Your task to perform on an android device: set the stopwatch Image 0: 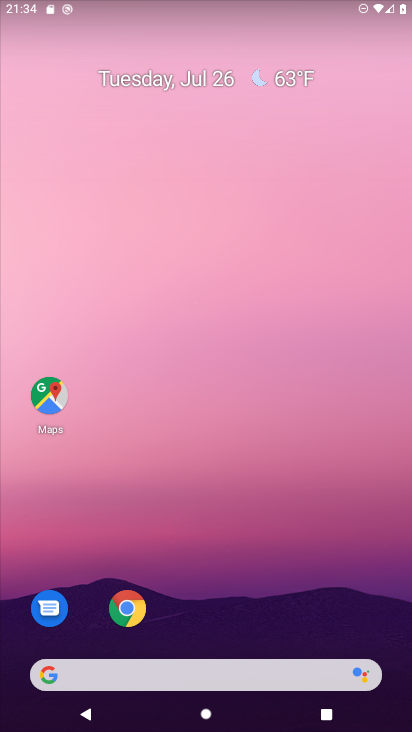
Step 0: drag from (26, 707) to (224, 86)
Your task to perform on an android device: set the stopwatch Image 1: 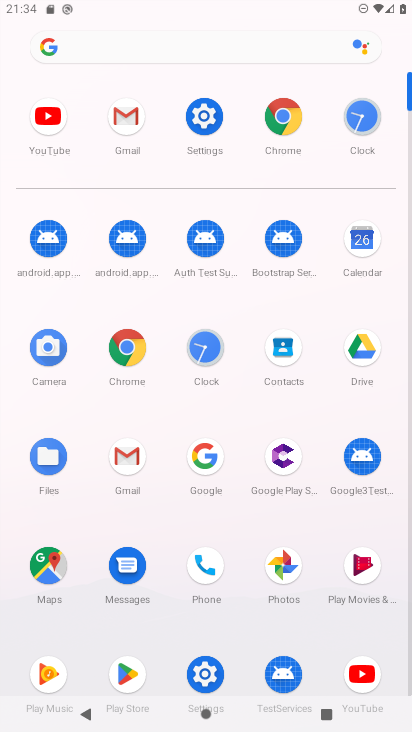
Step 1: click (211, 353)
Your task to perform on an android device: set the stopwatch Image 2: 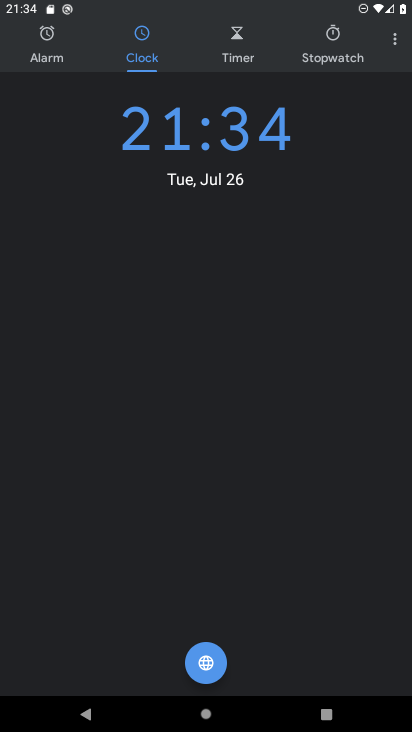
Step 2: click (322, 39)
Your task to perform on an android device: set the stopwatch Image 3: 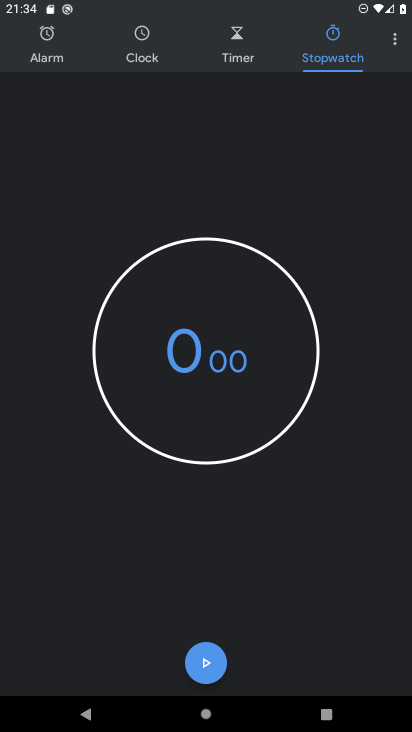
Step 3: click (194, 363)
Your task to perform on an android device: set the stopwatch Image 4: 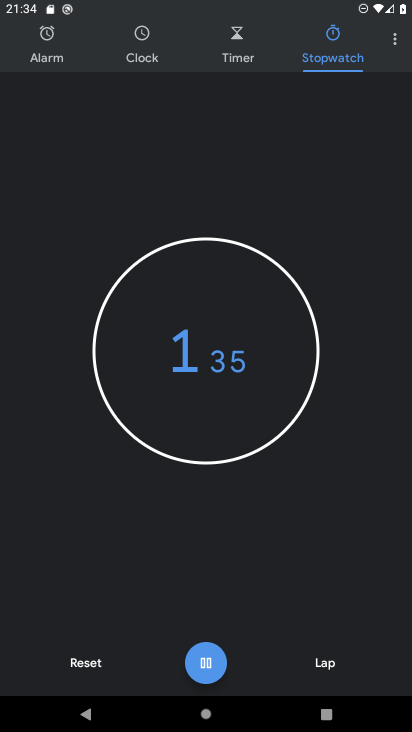
Step 4: click (202, 370)
Your task to perform on an android device: set the stopwatch Image 5: 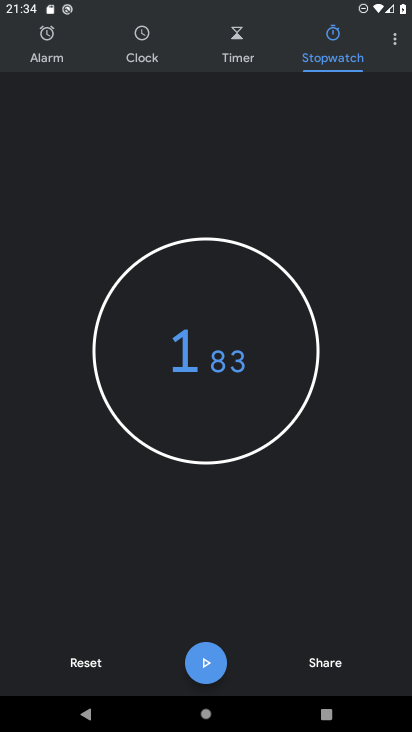
Step 5: task complete